Your task to perform on an android device: install app "VLC for Android" Image 0: 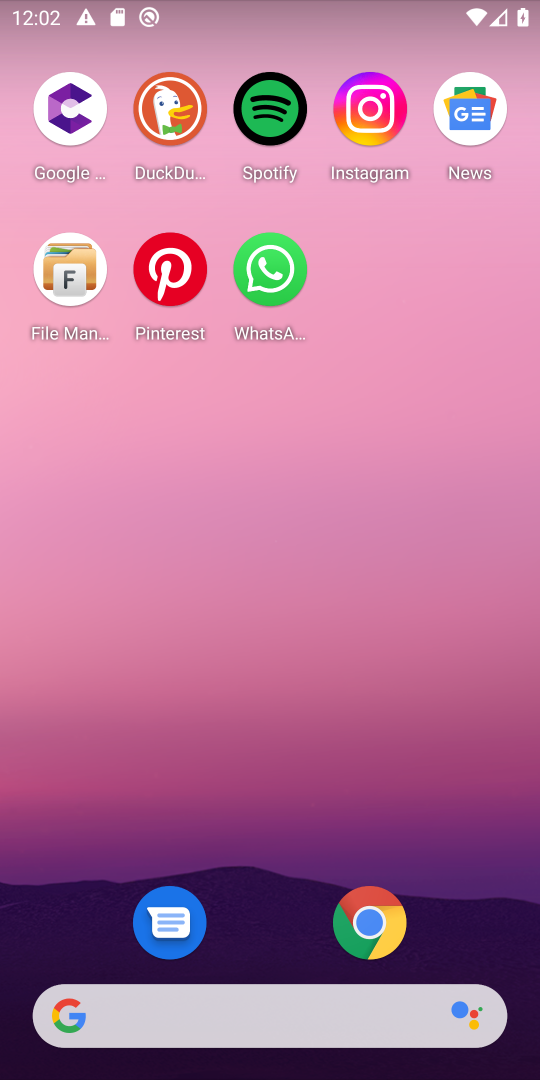
Step 0: drag from (400, 695) to (340, 108)
Your task to perform on an android device: install app "VLC for Android" Image 1: 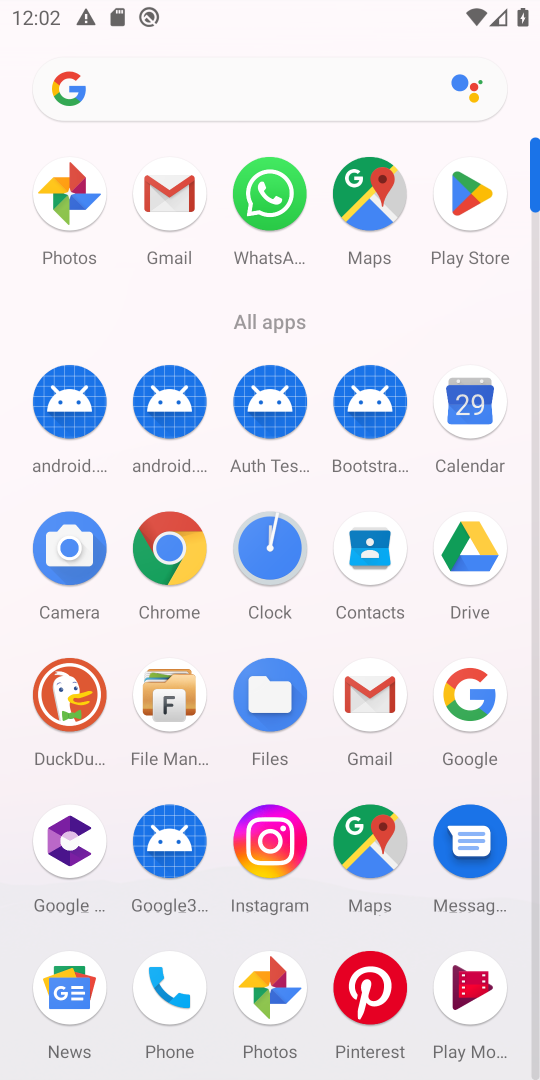
Step 1: click (485, 194)
Your task to perform on an android device: install app "VLC for Android" Image 2: 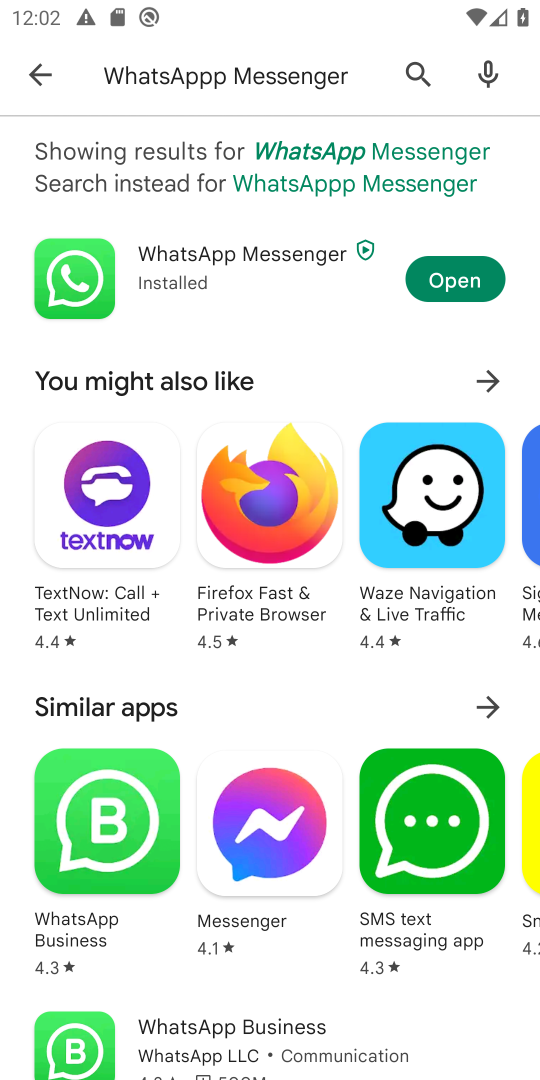
Step 2: click (323, 81)
Your task to perform on an android device: install app "VLC for Android" Image 3: 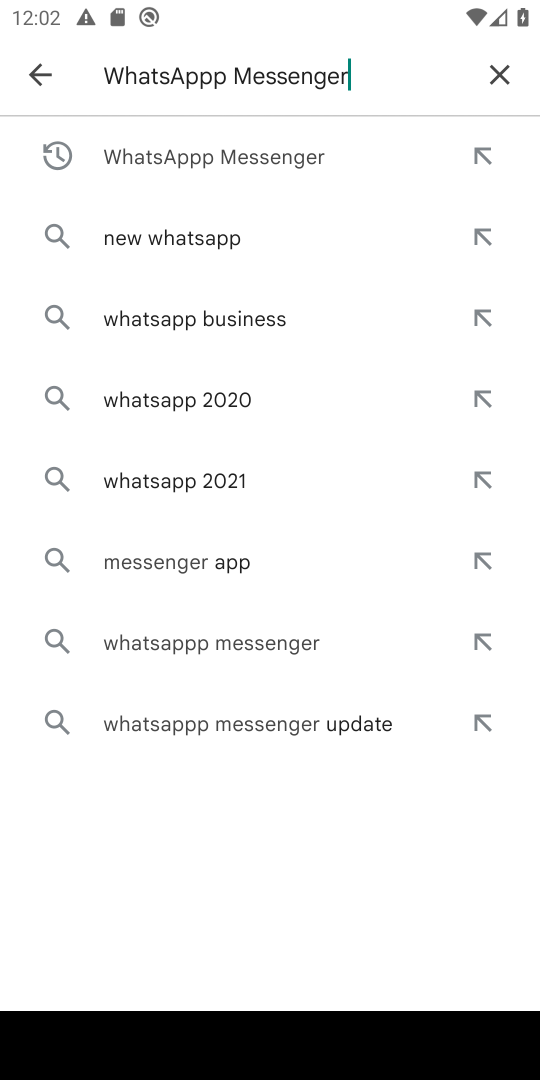
Step 3: click (486, 65)
Your task to perform on an android device: install app "VLC for Android" Image 4: 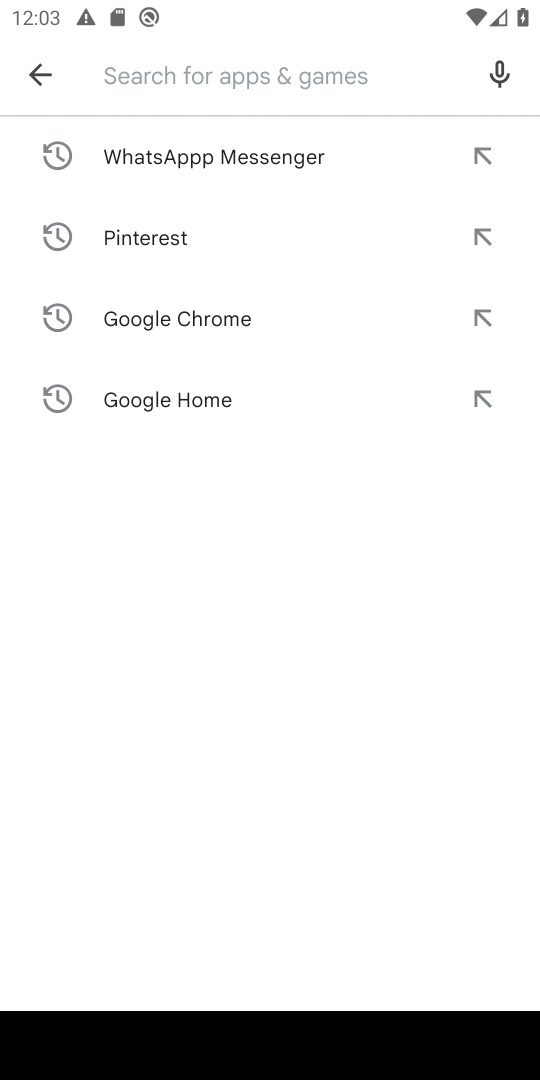
Step 4: type "VLC for Android"
Your task to perform on an android device: install app "VLC for Android" Image 5: 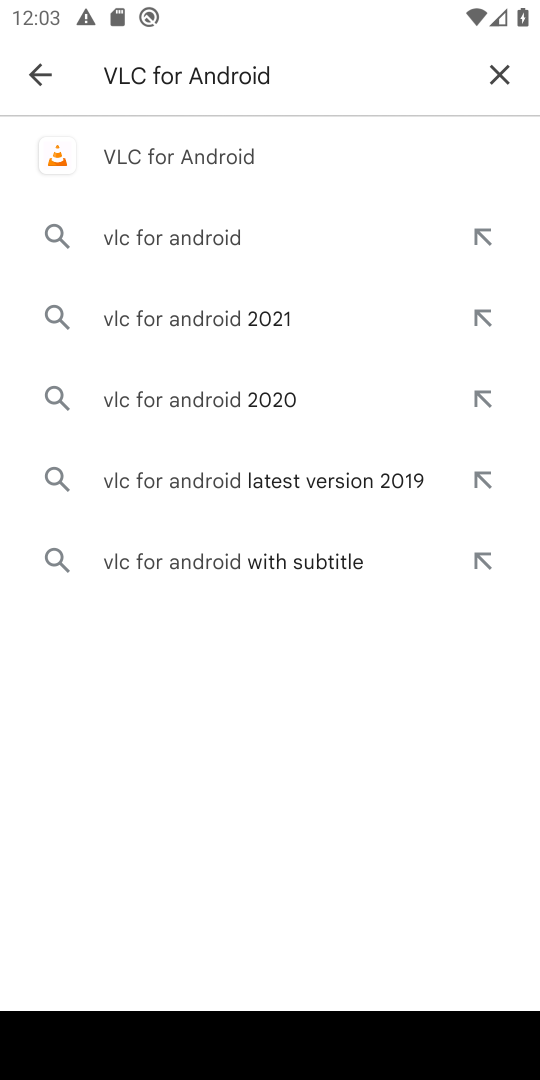
Step 5: click (110, 176)
Your task to perform on an android device: install app "VLC for Android" Image 6: 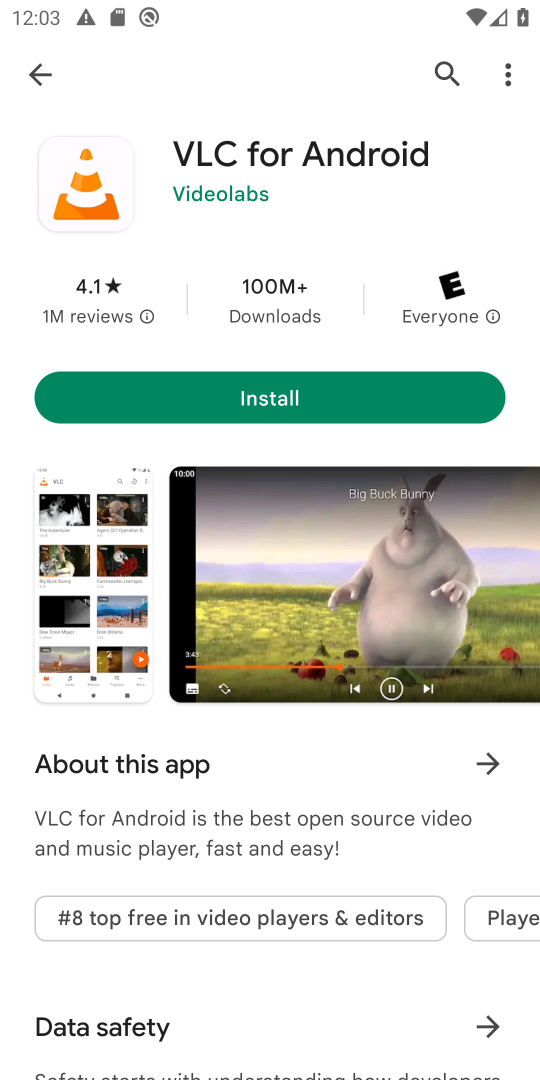
Step 6: click (369, 406)
Your task to perform on an android device: install app "VLC for Android" Image 7: 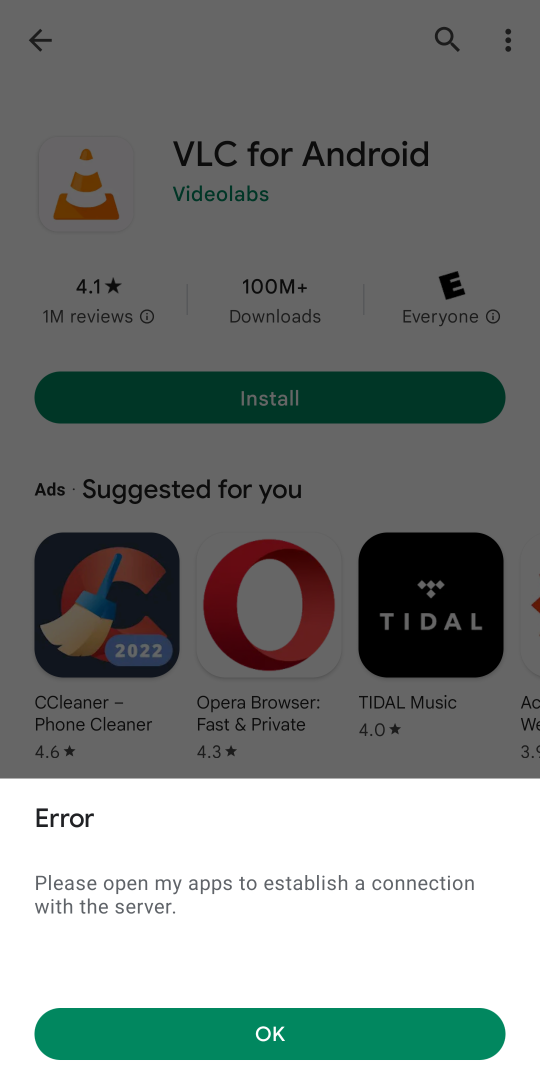
Step 7: click (369, 1028)
Your task to perform on an android device: install app "VLC for Android" Image 8: 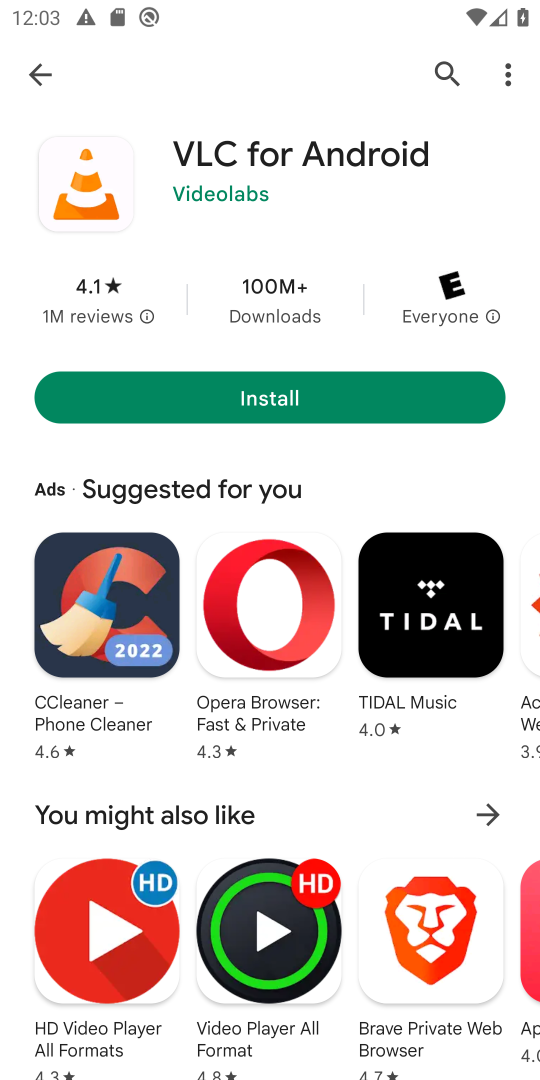
Step 8: click (257, 397)
Your task to perform on an android device: install app "VLC for Android" Image 9: 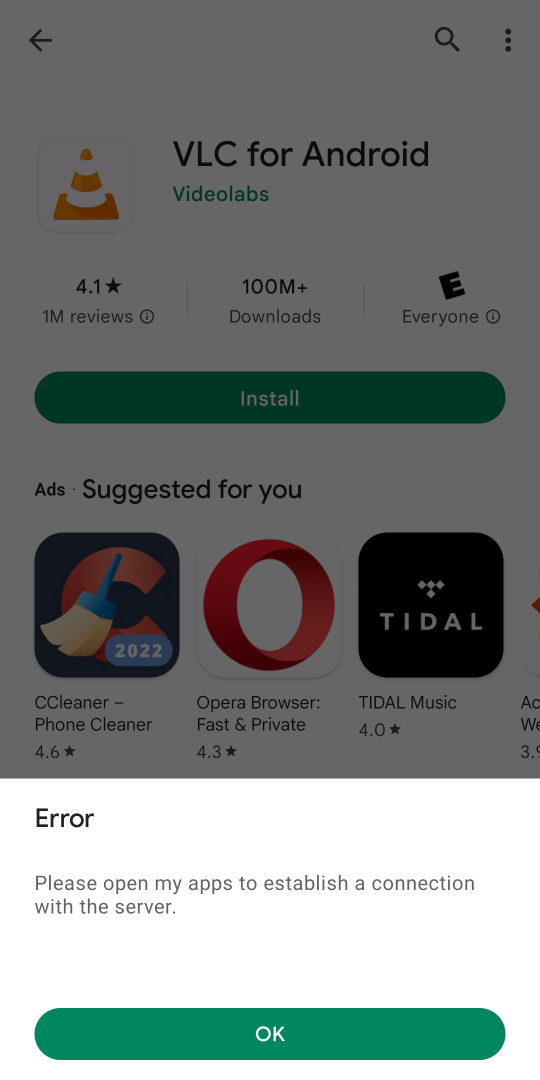
Step 9: click (367, 1025)
Your task to perform on an android device: install app "VLC for Android" Image 10: 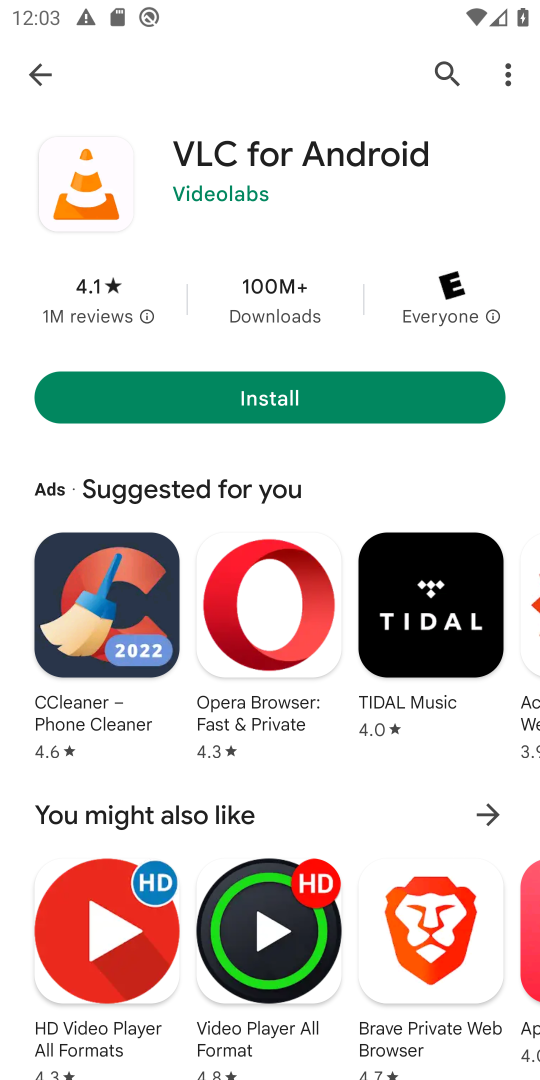
Step 10: click (329, 386)
Your task to perform on an android device: install app "VLC for Android" Image 11: 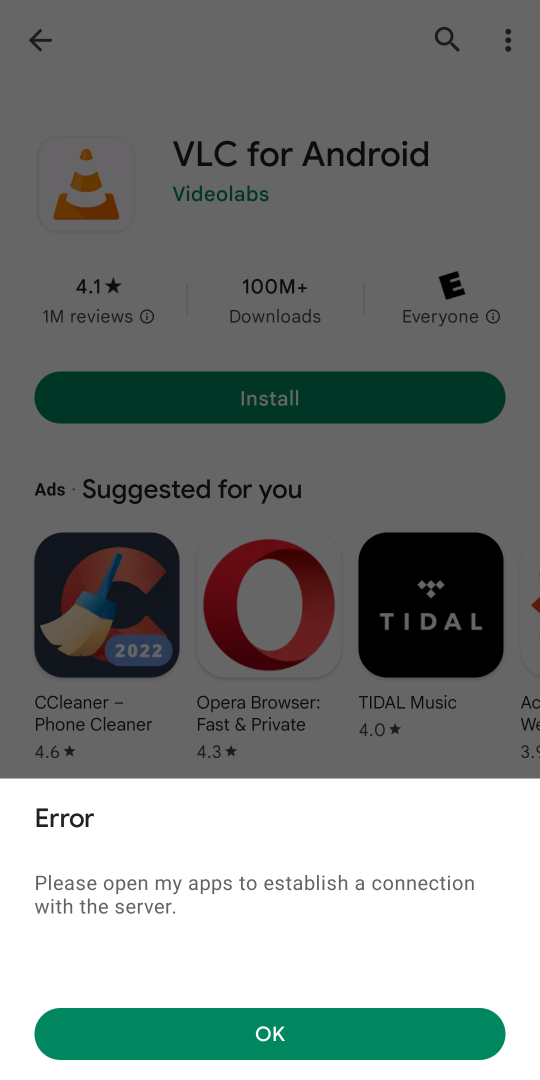
Step 11: task complete